Your task to perform on an android device: Open Android settings Image 0: 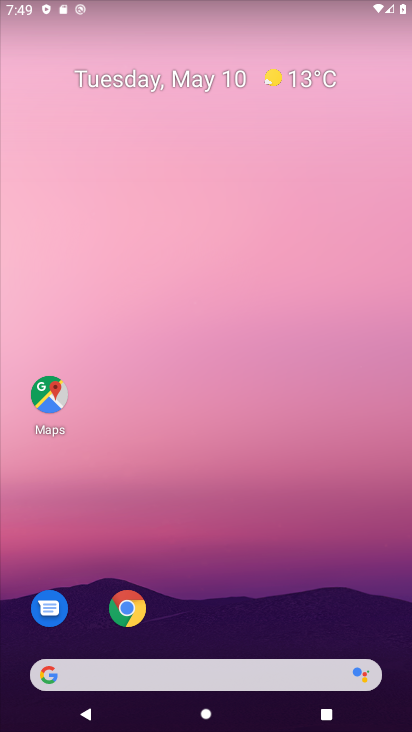
Step 0: drag from (134, 682) to (238, 68)
Your task to perform on an android device: Open Android settings Image 1: 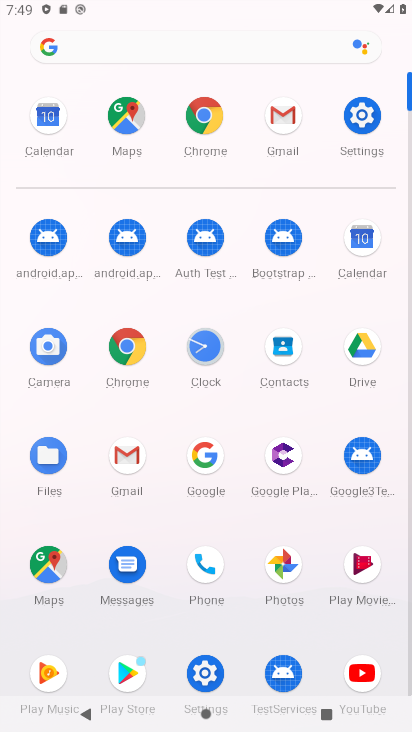
Step 1: click (358, 117)
Your task to perform on an android device: Open Android settings Image 2: 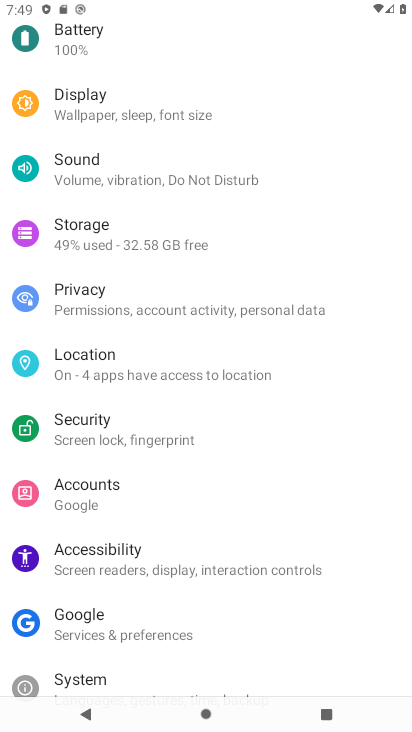
Step 2: task complete